Your task to perform on an android device: Open Maps and search for coffee Image 0: 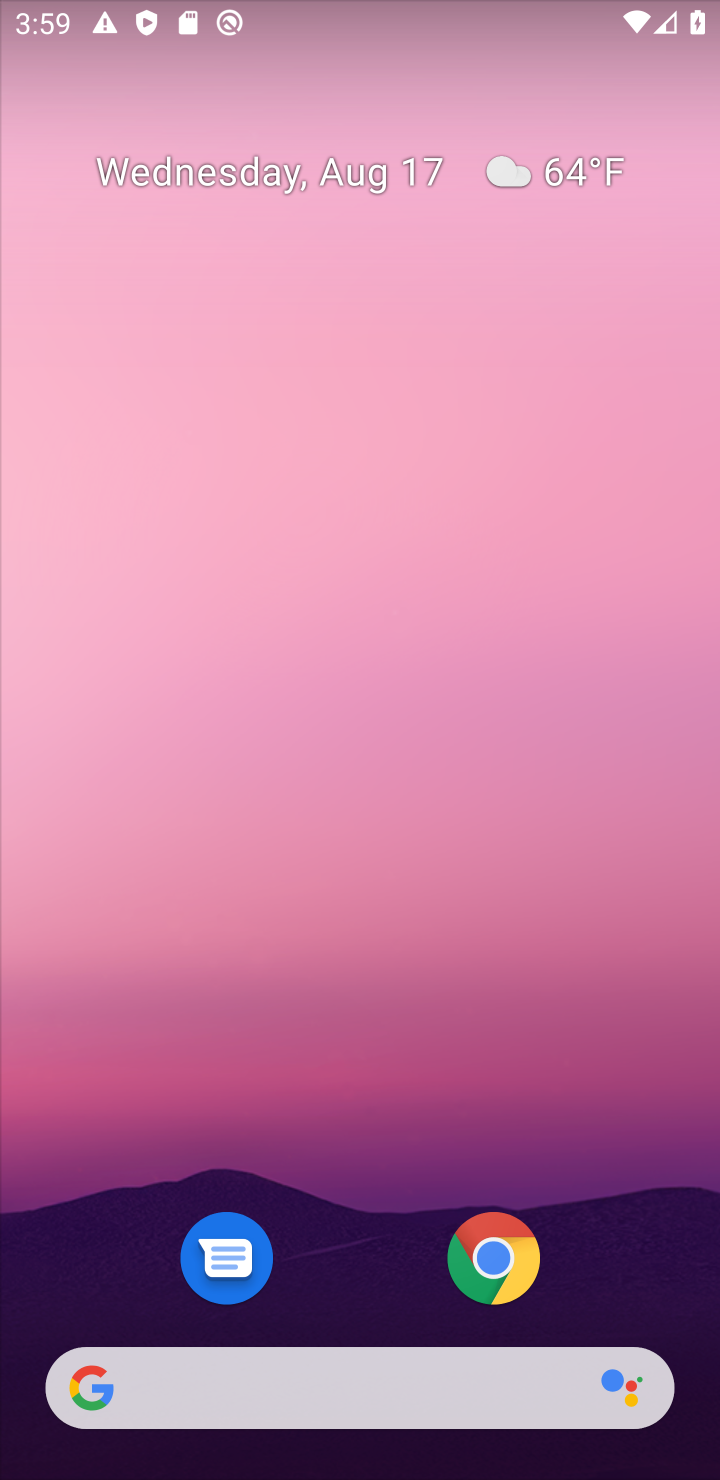
Step 0: drag from (623, 1209) to (506, 272)
Your task to perform on an android device: Open Maps and search for coffee Image 1: 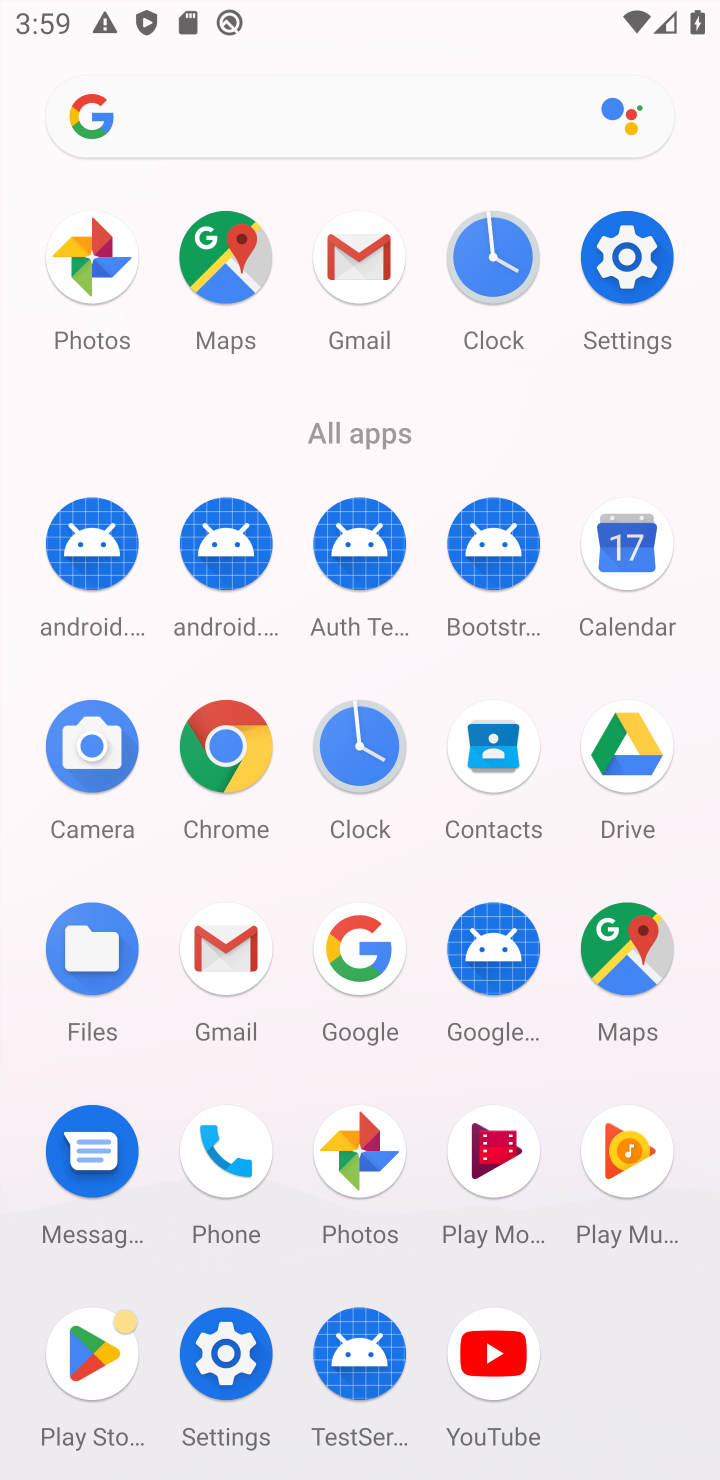
Step 1: click (646, 962)
Your task to perform on an android device: Open Maps and search for coffee Image 2: 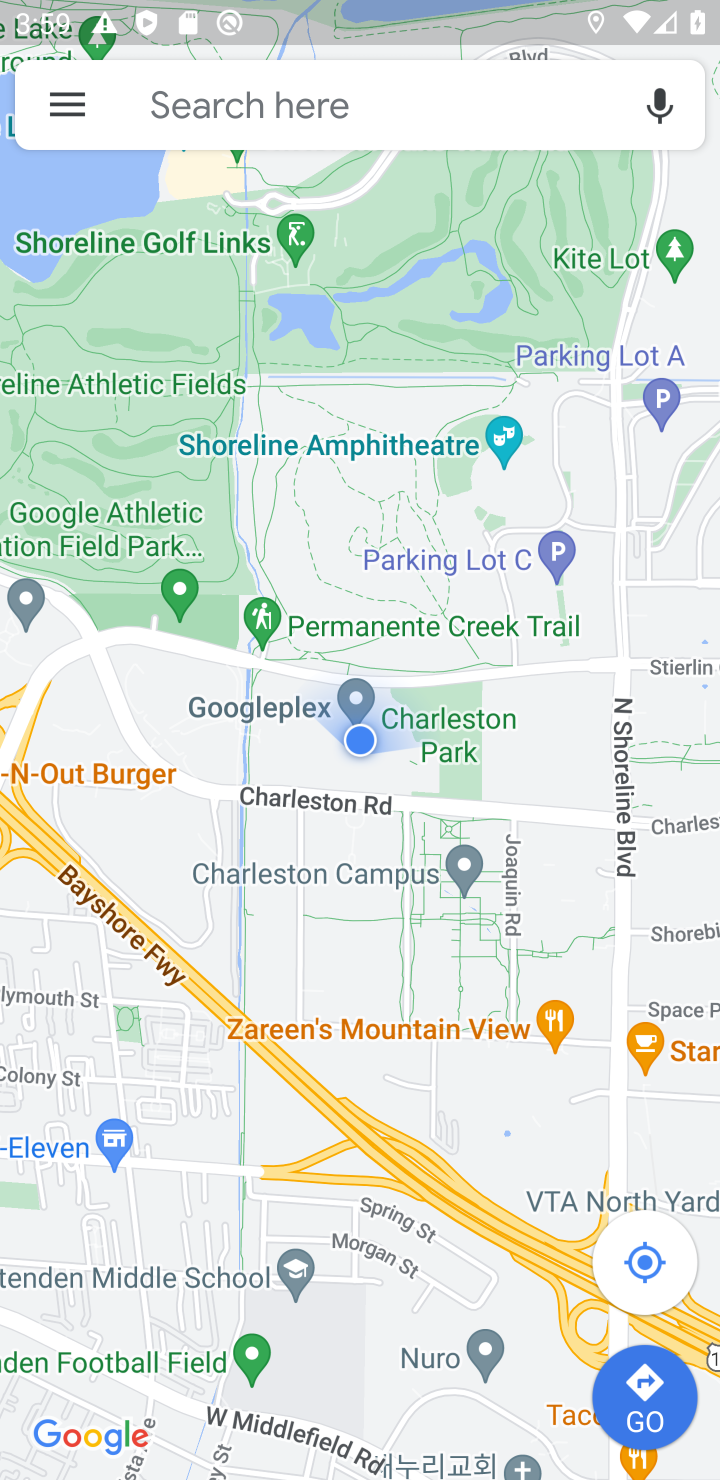
Step 2: click (309, 107)
Your task to perform on an android device: Open Maps and search for coffee Image 3: 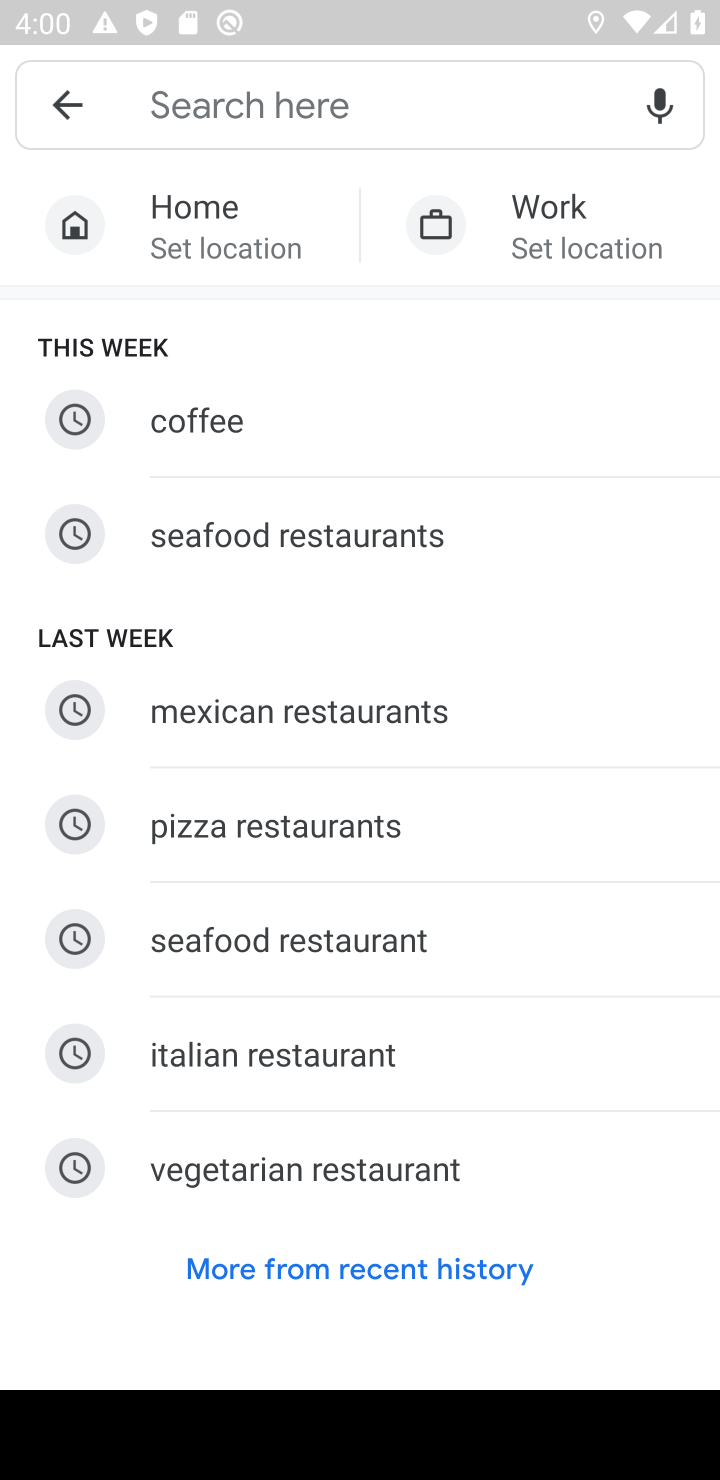
Step 3: click (267, 403)
Your task to perform on an android device: Open Maps and search for coffee Image 4: 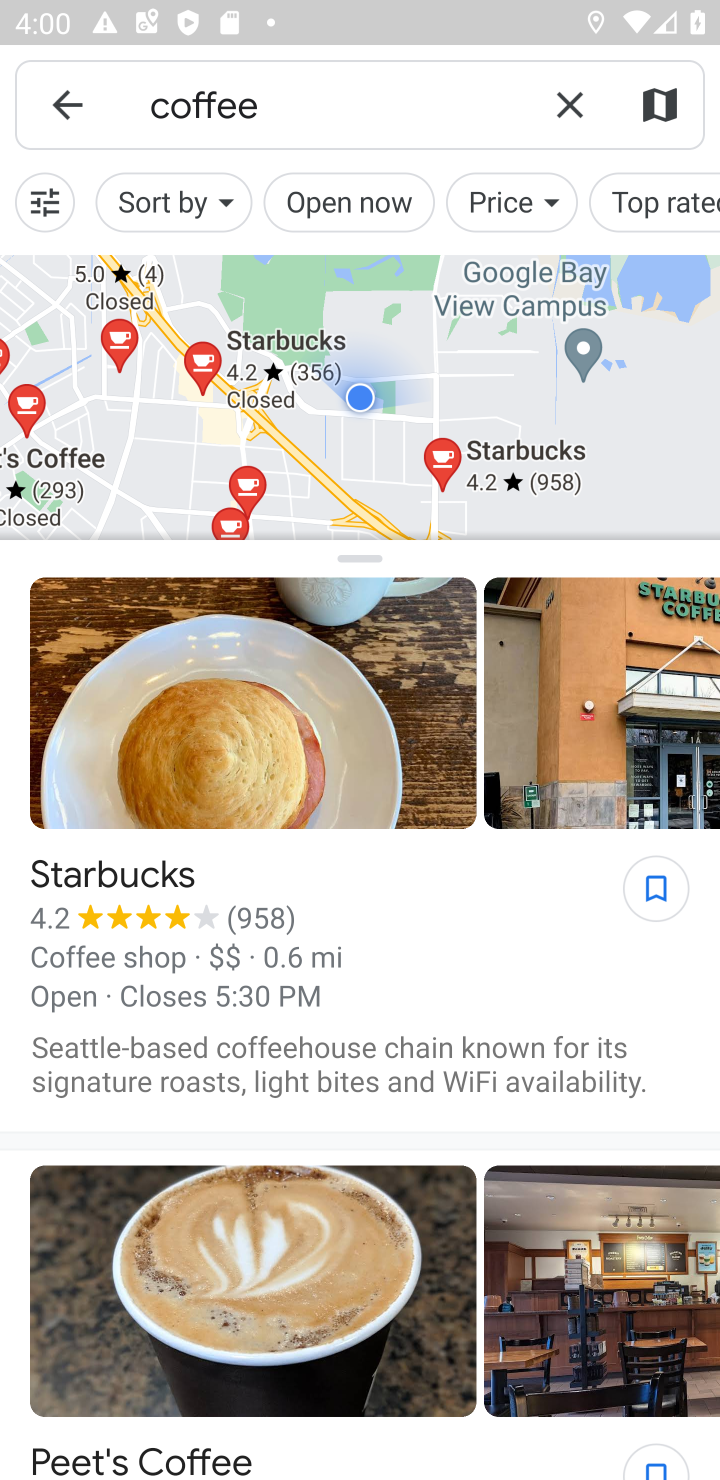
Step 4: task complete